Your task to perform on an android device: clear all cookies in the chrome app Image 0: 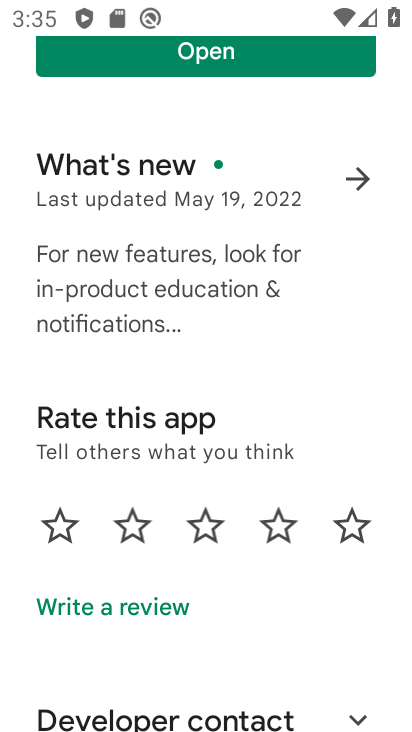
Step 0: press home button
Your task to perform on an android device: clear all cookies in the chrome app Image 1: 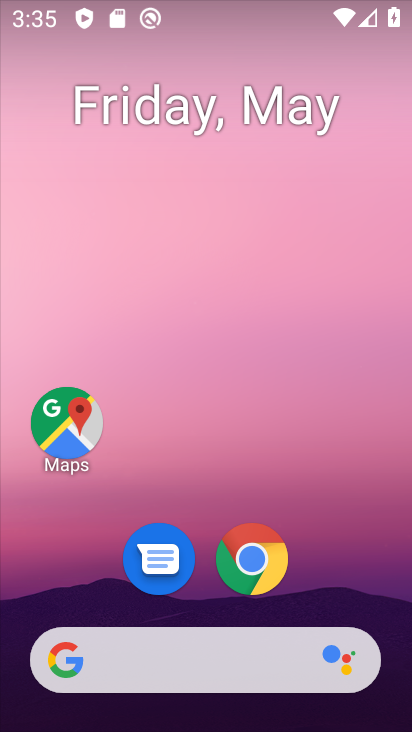
Step 1: click (276, 562)
Your task to perform on an android device: clear all cookies in the chrome app Image 2: 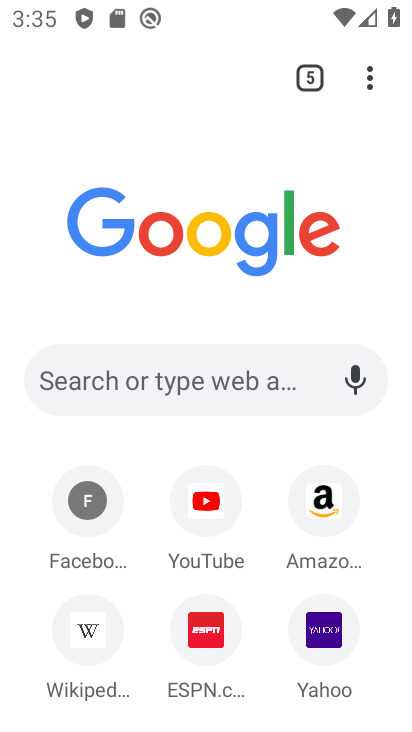
Step 2: click (365, 85)
Your task to perform on an android device: clear all cookies in the chrome app Image 3: 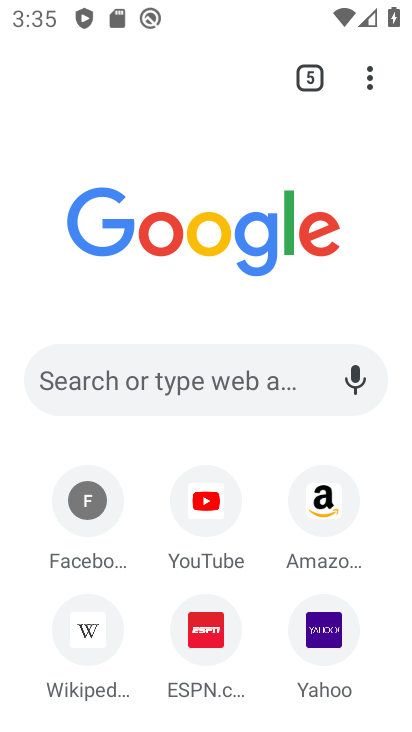
Step 3: click (382, 68)
Your task to perform on an android device: clear all cookies in the chrome app Image 4: 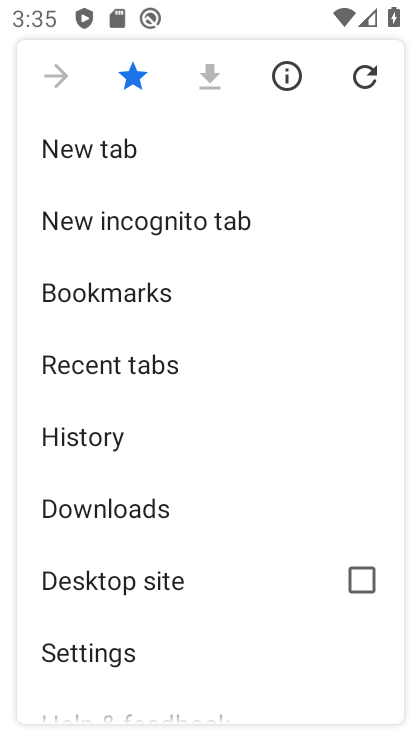
Step 4: click (144, 656)
Your task to perform on an android device: clear all cookies in the chrome app Image 5: 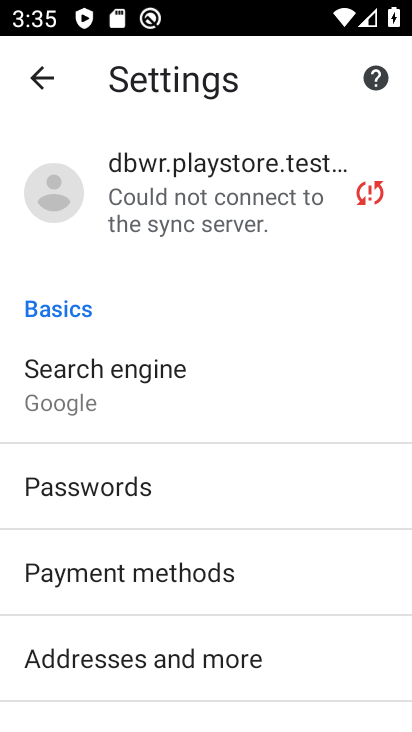
Step 5: drag from (237, 652) to (244, 170)
Your task to perform on an android device: clear all cookies in the chrome app Image 6: 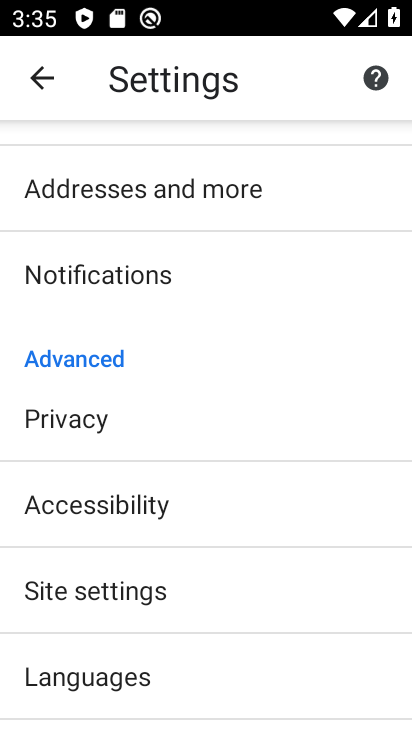
Step 6: click (130, 589)
Your task to perform on an android device: clear all cookies in the chrome app Image 7: 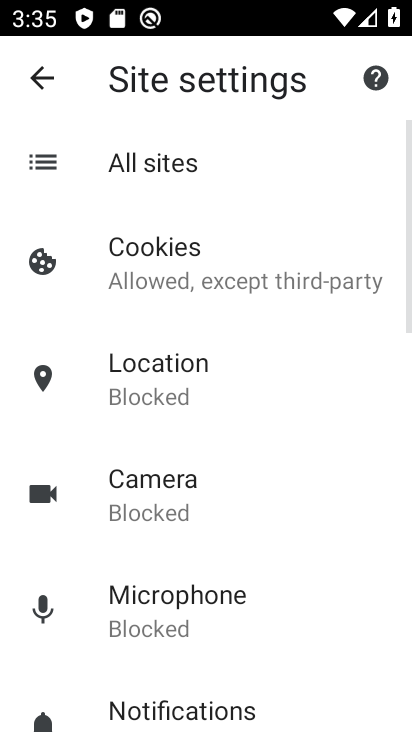
Step 7: click (211, 252)
Your task to perform on an android device: clear all cookies in the chrome app Image 8: 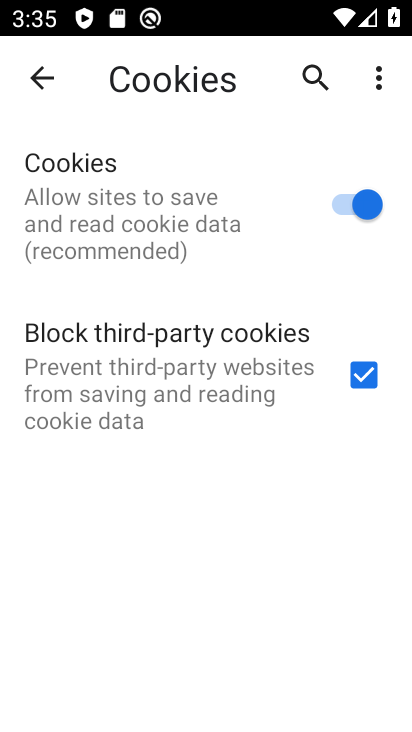
Step 8: task complete